Your task to perform on an android device: View the shopping cart on costco.com. Add logitech g933 to the cart on costco.com, then select checkout. Image 0: 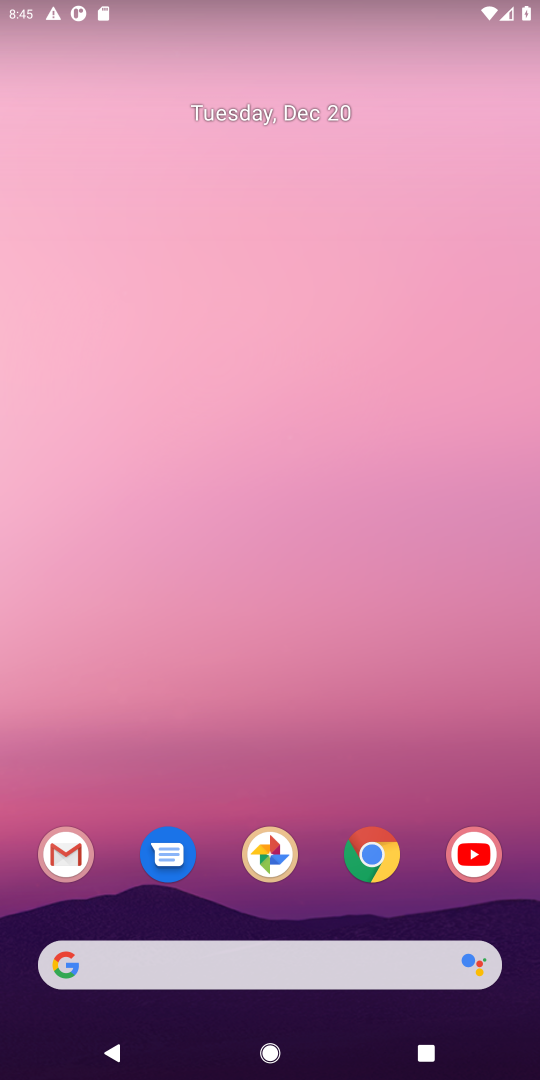
Step 0: click (374, 863)
Your task to perform on an android device: View the shopping cart on costco.com. Add logitech g933 to the cart on costco.com, then select checkout. Image 1: 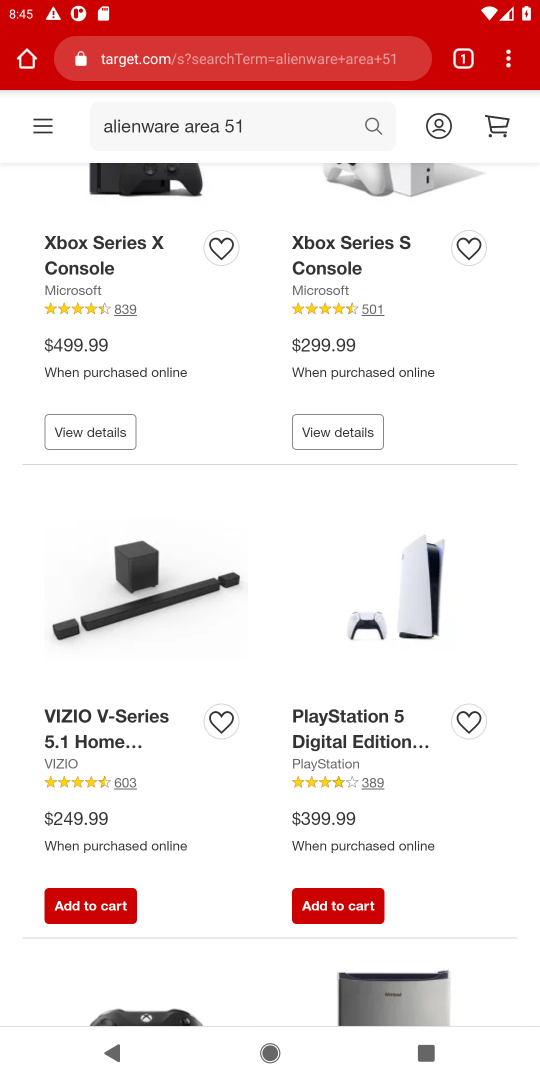
Step 1: click (193, 65)
Your task to perform on an android device: View the shopping cart on costco.com. Add logitech g933 to the cart on costco.com, then select checkout. Image 2: 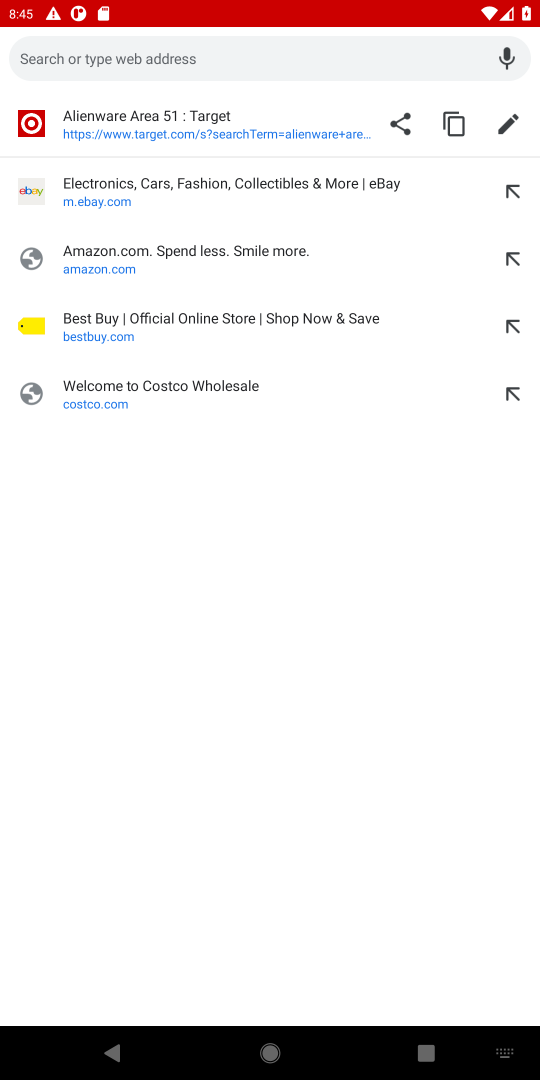
Step 2: click (100, 391)
Your task to perform on an android device: View the shopping cart on costco.com. Add logitech g933 to the cart on costco.com, then select checkout. Image 3: 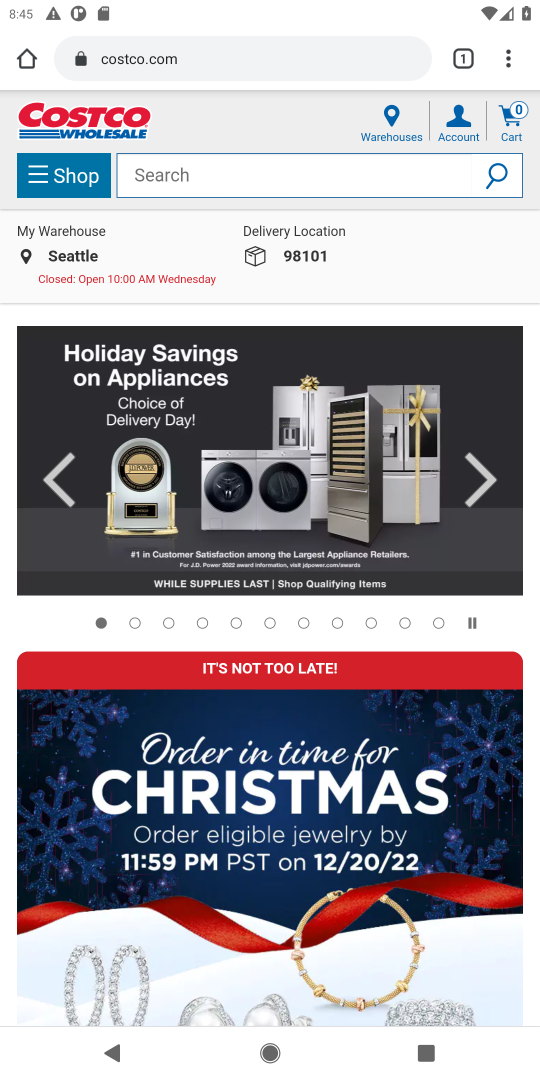
Step 3: click (498, 119)
Your task to perform on an android device: View the shopping cart on costco.com. Add logitech g933 to the cart on costco.com, then select checkout. Image 4: 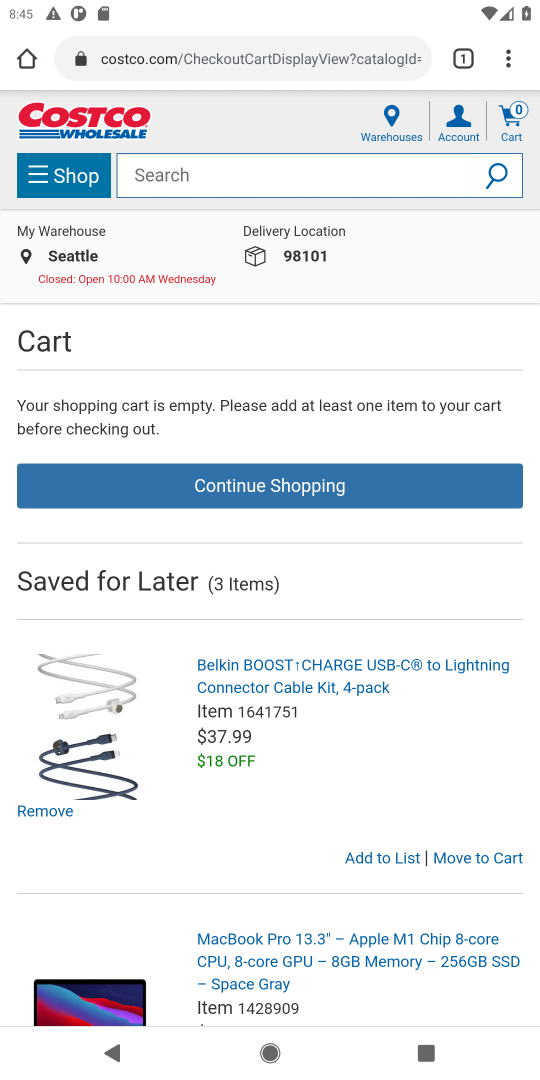
Step 4: click (152, 174)
Your task to perform on an android device: View the shopping cart on costco.com. Add logitech g933 to the cart on costco.com, then select checkout. Image 5: 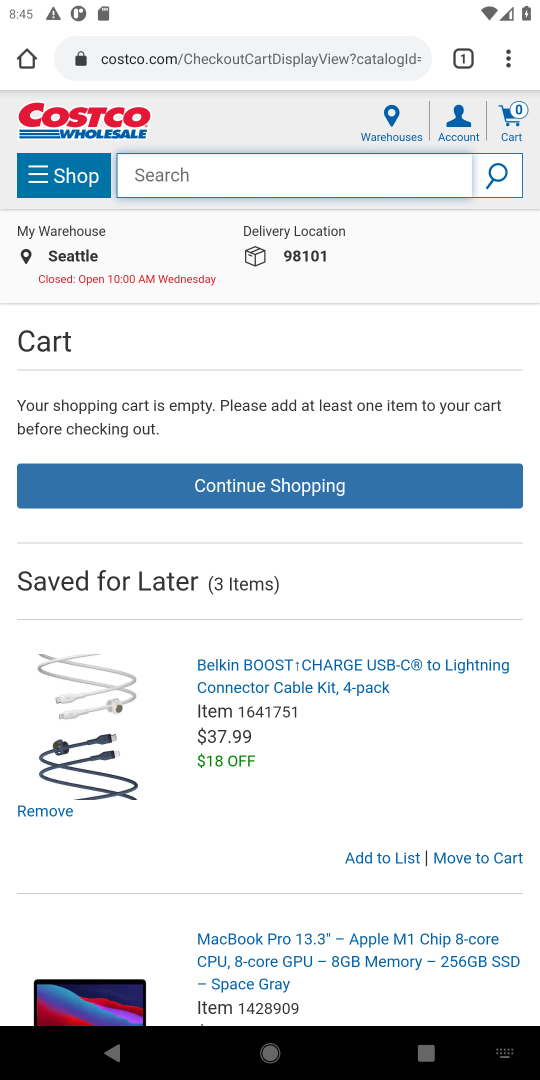
Step 5: type "logitech g933"
Your task to perform on an android device: View the shopping cart on costco.com. Add logitech g933 to the cart on costco.com, then select checkout. Image 6: 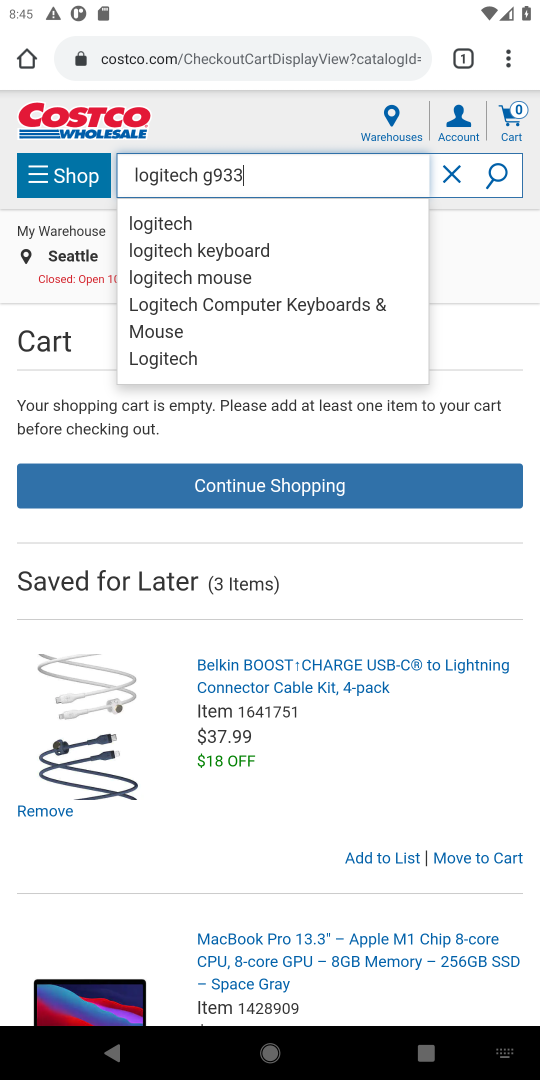
Step 6: click (503, 175)
Your task to perform on an android device: View the shopping cart on costco.com. Add logitech g933 to the cart on costco.com, then select checkout. Image 7: 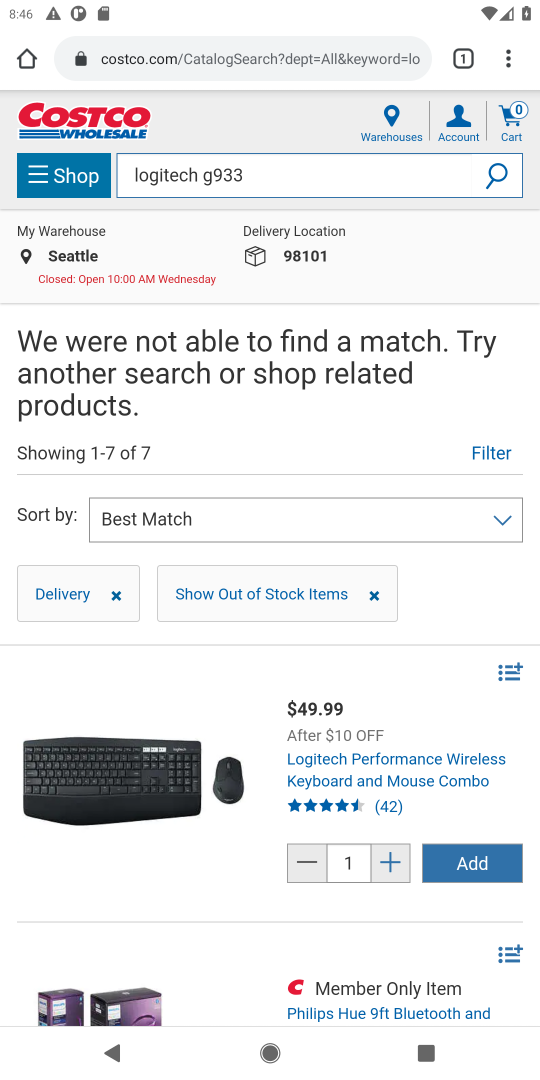
Step 7: task complete